Your task to perform on an android device: Turn off the flashlight Image 0: 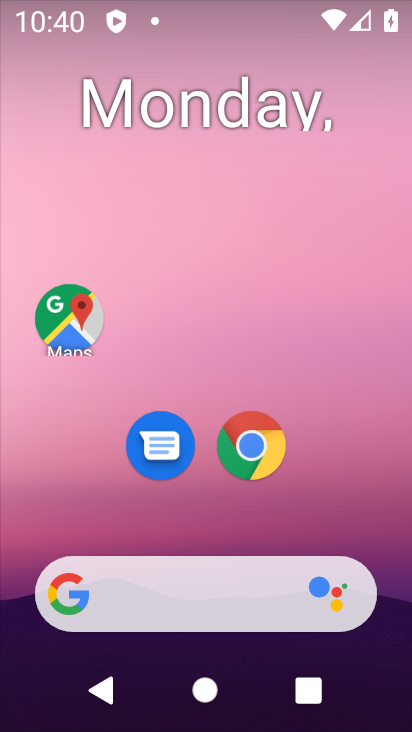
Step 0: drag from (361, 504) to (125, 112)
Your task to perform on an android device: Turn off the flashlight Image 1: 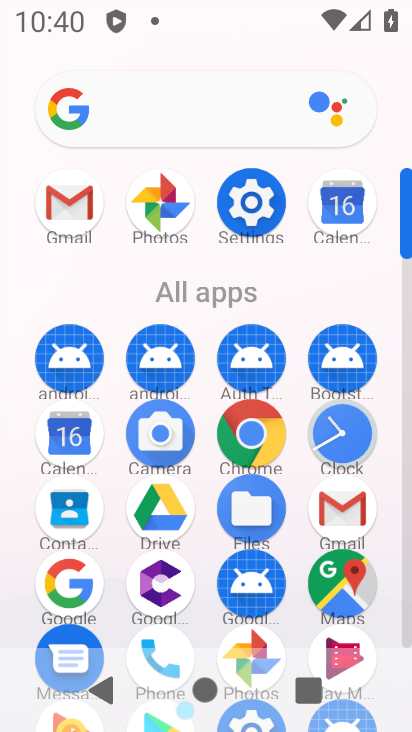
Step 1: click (260, 205)
Your task to perform on an android device: Turn off the flashlight Image 2: 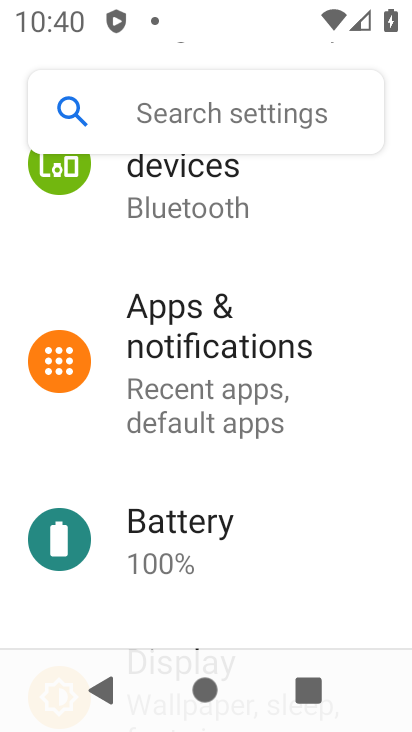
Step 2: click (105, 109)
Your task to perform on an android device: Turn off the flashlight Image 3: 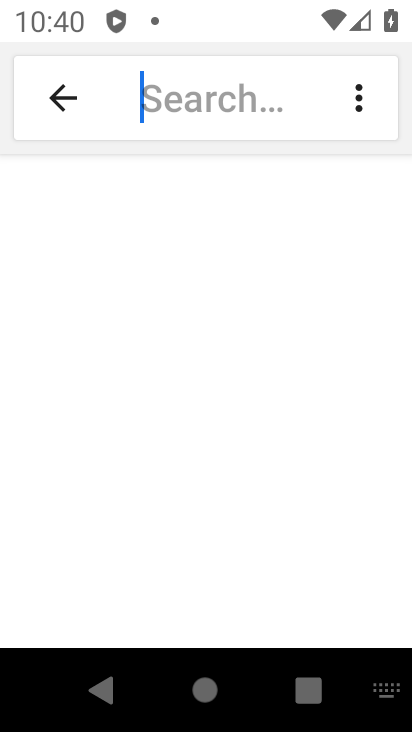
Step 3: click (252, 104)
Your task to perform on an android device: Turn off the flashlight Image 4: 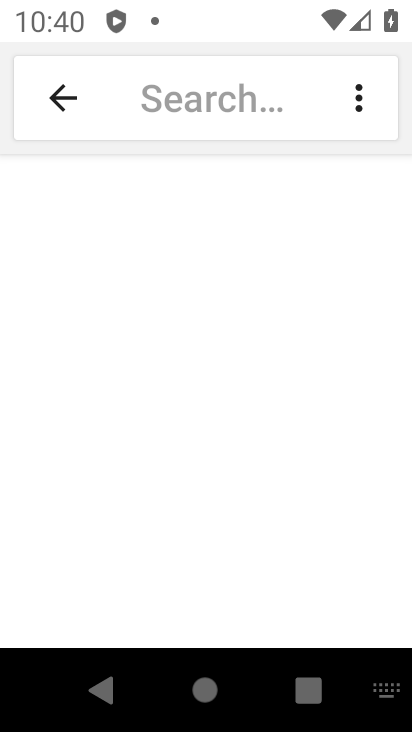
Step 4: type "flashlight"
Your task to perform on an android device: Turn off the flashlight Image 5: 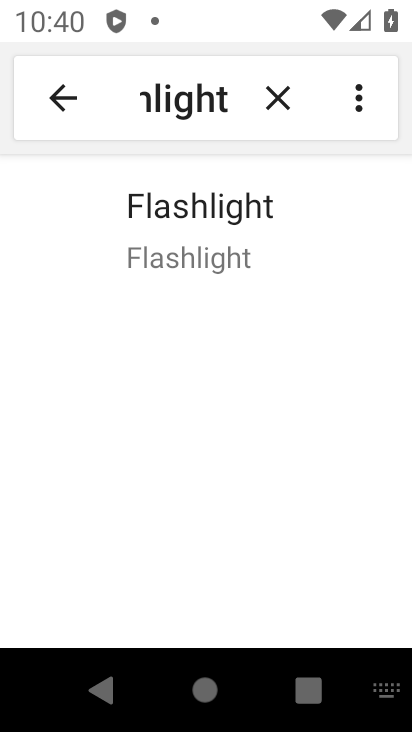
Step 5: click (193, 197)
Your task to perform on an android device: Turn off the flashlight Image 6: 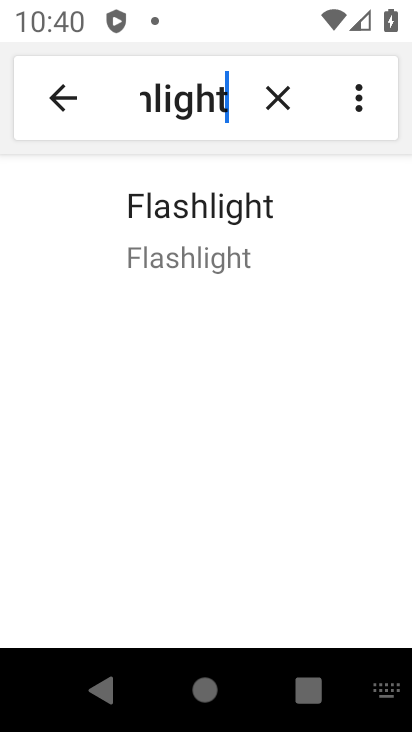
Step 6: click (181, 233)
Your task to perform on an android device: Turn off the flashlight Image 7: 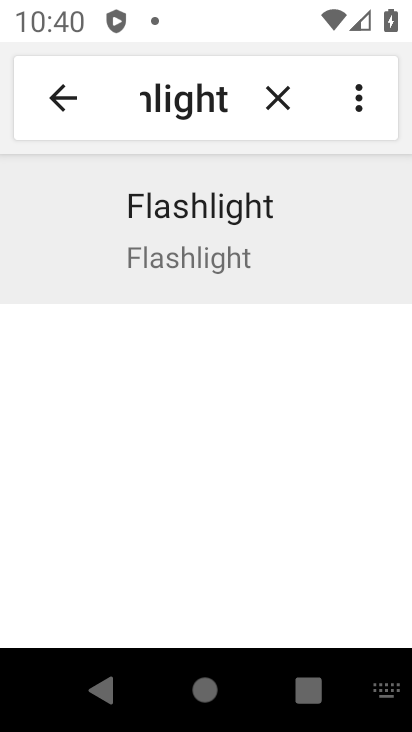
Step 7: click (181, 233)
Your task to perform on an android device: Turn off the flashlight Image 8: 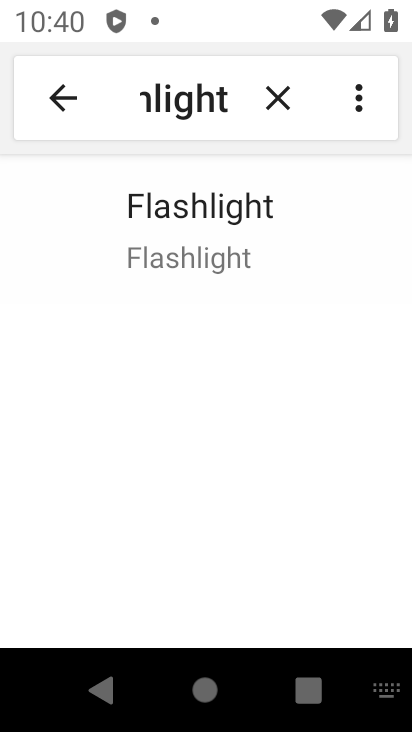
Step 8: click (181, 233)
Your task to perform on an android device: Turn off the flashlight Image 9: 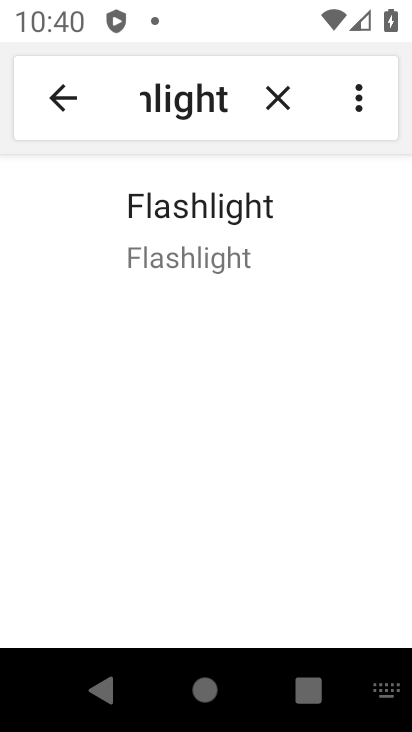
Step 9: click (181, 233)
Your task to perform on an android device: Turn off the flashlight Image 10: 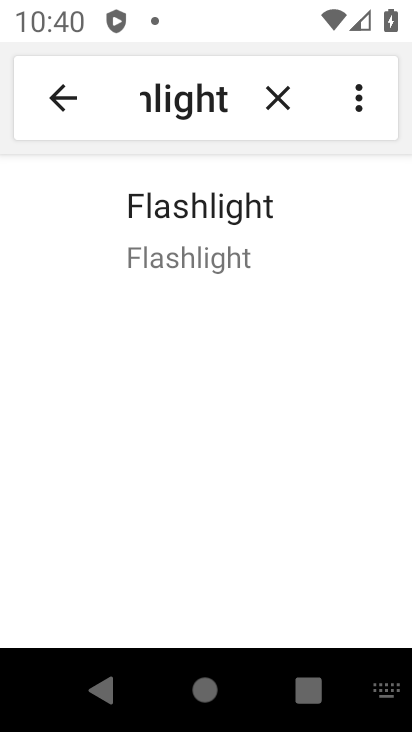
Step 10: click (181, 233)
Your task to perform on an android device: Turn off the flashlight Image 11: 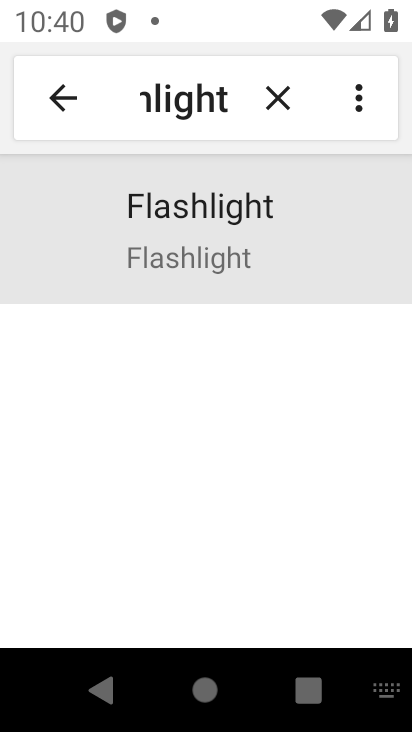
Step 11: click (183, 230)
Your task to perform on an android device: Turn off the flashlight Image 12: 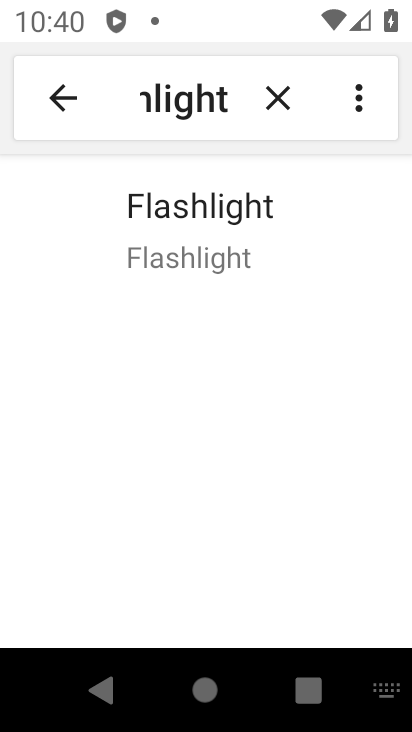
Step 12: click (183, 230)
Your task to perform on an android device: Turn off the flashlight Image 13: 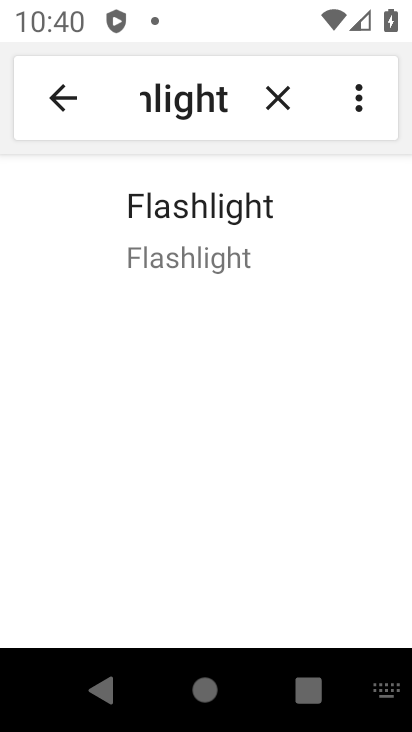
Step 13: click (183, 230)
Your task to perform on an android device: Turn off the flashlight Image 14: 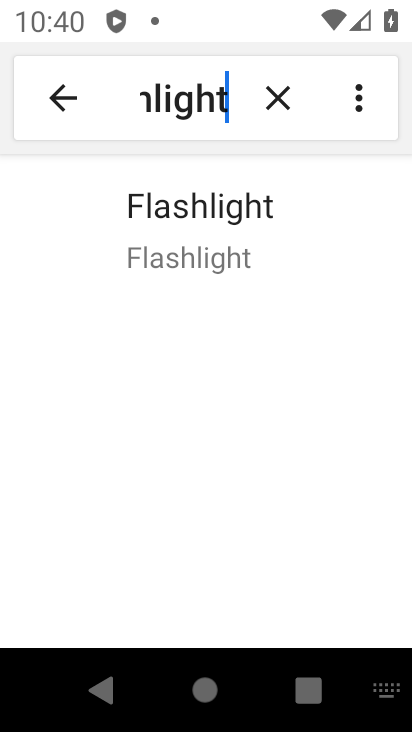
Step 14: task complete